Your task to perform on an android device: Open Google Chrome Image 0: 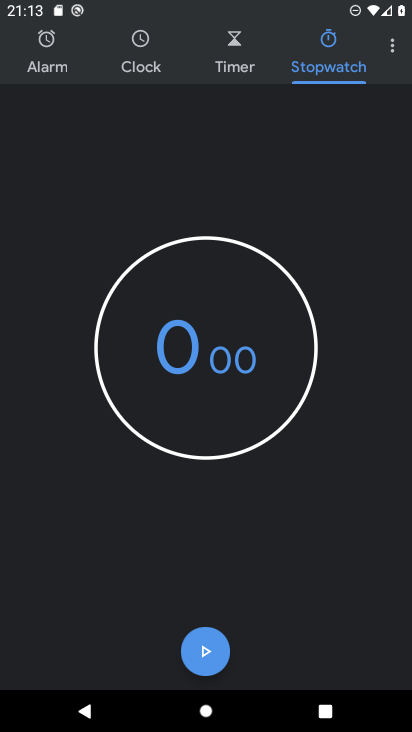
Step 0: press home button
Your task to perform on an android device: Open Google Chrome Image 1: 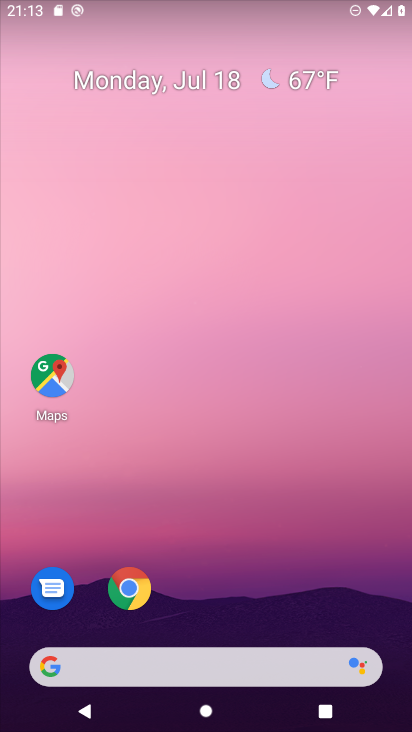
Step 1: click (126, 587)
Your task to perform on an android device: Open Google Chrome Image 2: 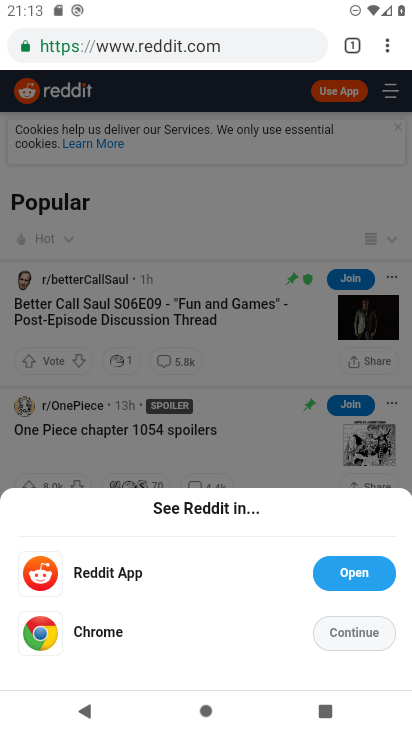
Step 2: click (249, 173)
Your task to perform on an android device: Open Google Chrome Image 3: 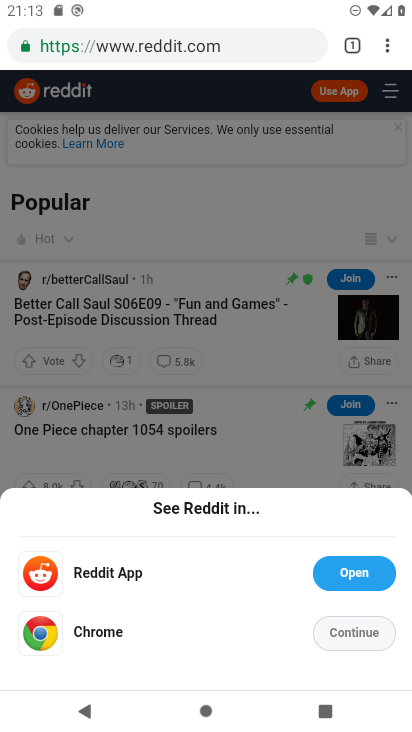
Step 3: task complete